Your task to perform on an android device: set an alarm Image 0: 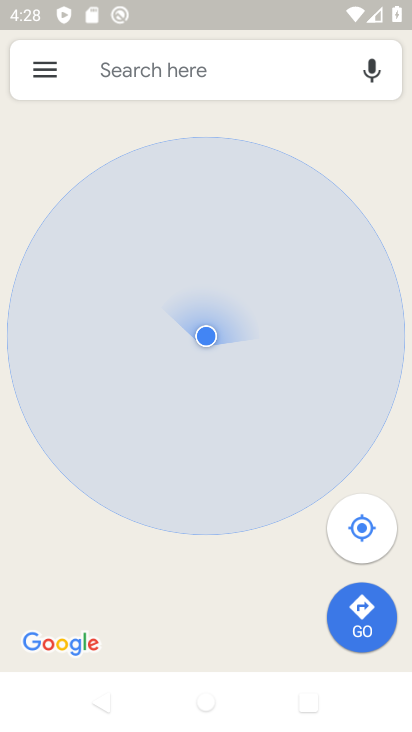
Step 0: press home button
Your task to perform on an android device: set an alarm Image 1: 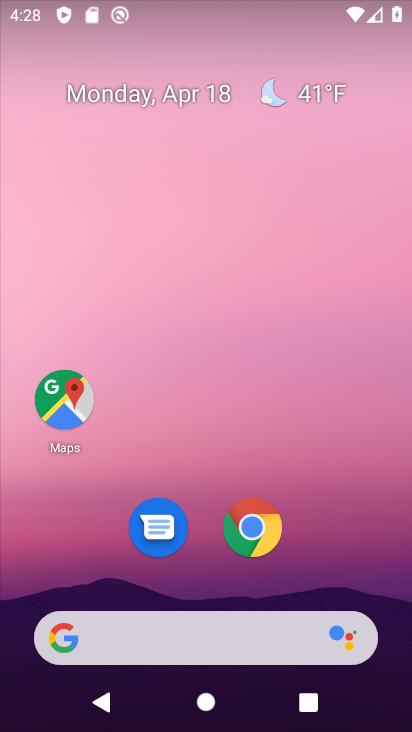
Step 1: drag from (352, 366) to (321, 165)
Your task to perform on an android device: set an alarm Image 2: 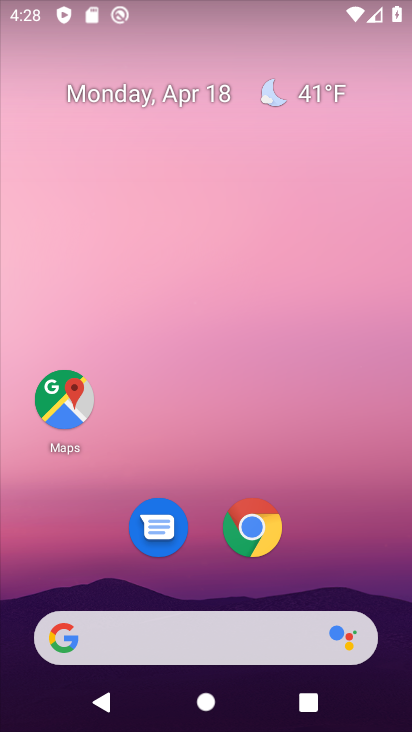
Step 2: drag from (358, 561) to (312, 108)
Your task to perform on an android device: set an alarm Image 3: 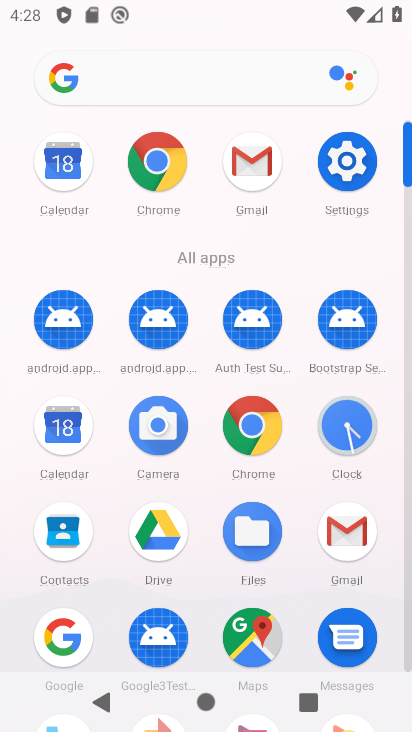
Step 3: click (351, 439)
Your task to perform on an android device: set an alarm Image 4: 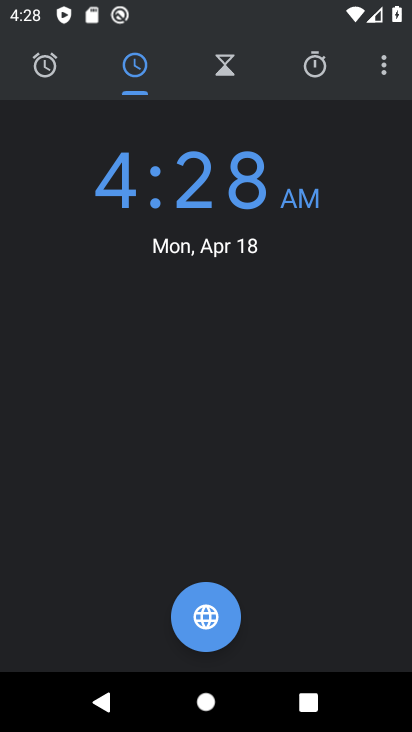
Step 4: click (47, 62)
Your task to perform on an android device: set an alarm Image 5: 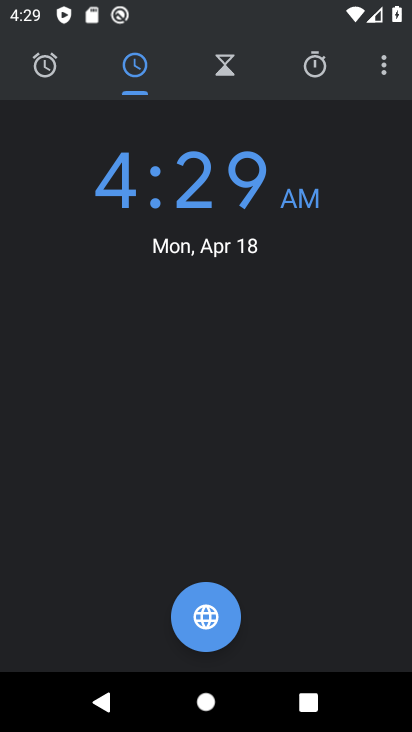
Step 5: click (44, 68)
Your task to perform on an android device: set an alarm Image 6: 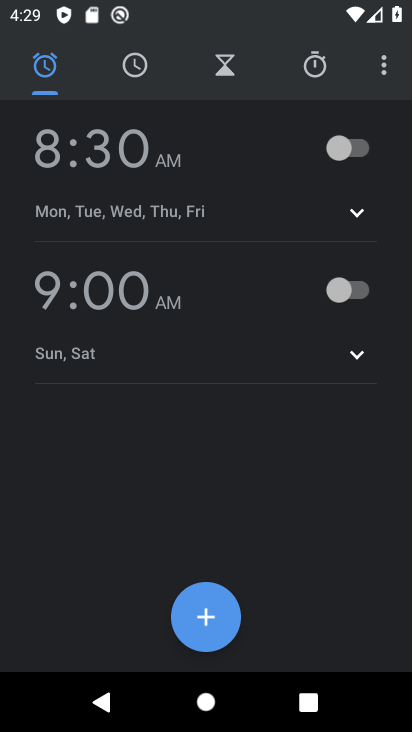
Step 6: click (207, 612)
Your task to perform on an android device: set an alarm Image 7: 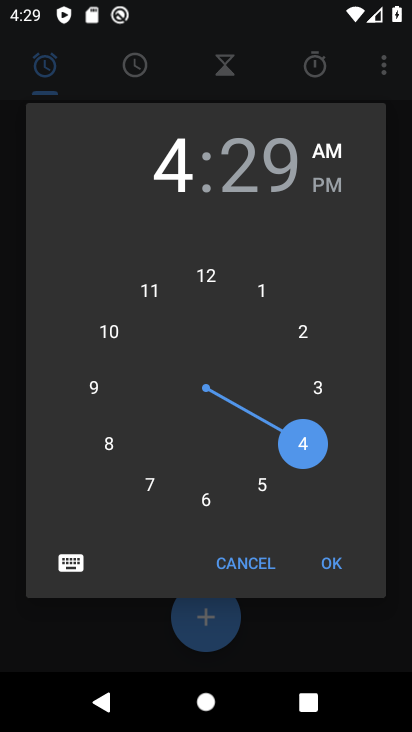
Step 7: click (332, 564)
Your task to perform on an android device: set an alarm Image 8: 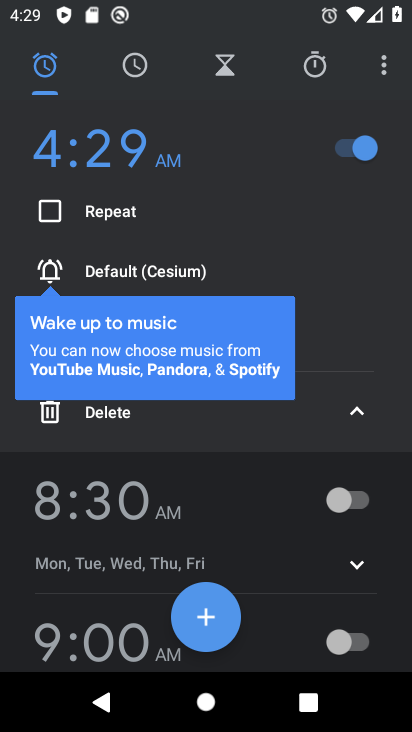
Step 8: task complete